Your task to perform on an android device: open device folders in google photos Image 0: 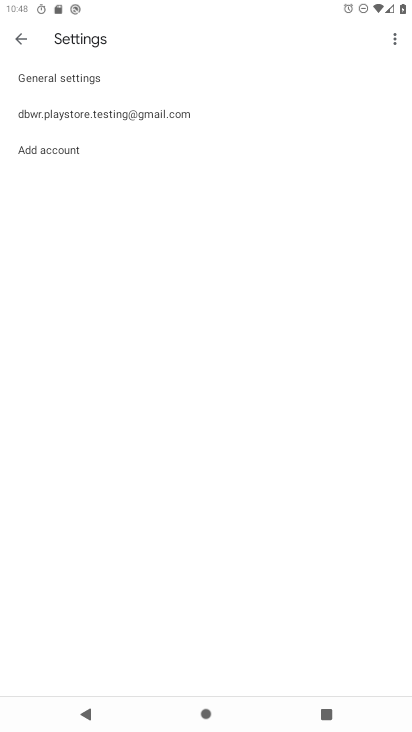
Step 0: press home button
Your task to perform on an android device: open device folders in google photos Image 1: 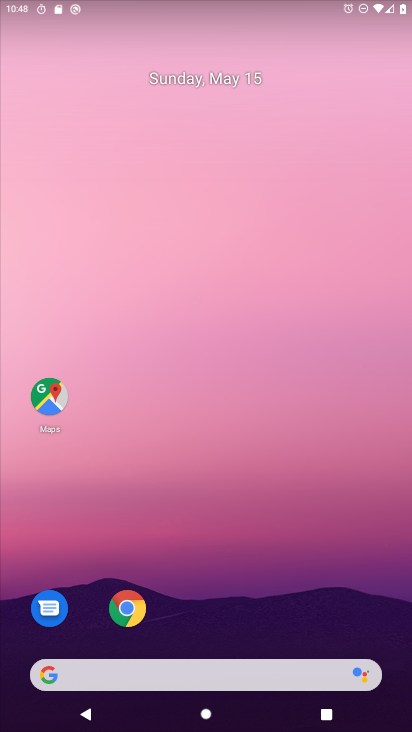
Step 1: drag from (372, 545) to (289, 132)
Your task to perform on an android device: open device folders in google photos Image 2: 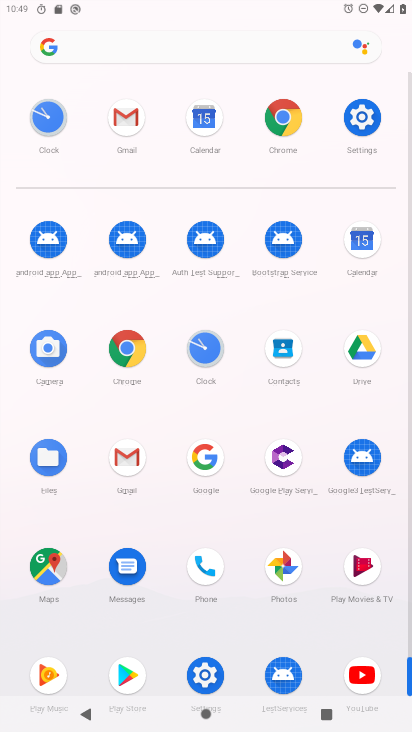
Step 2: click (269, 572)
Your task to perform on an android device: open device folders in google photos Image 3: 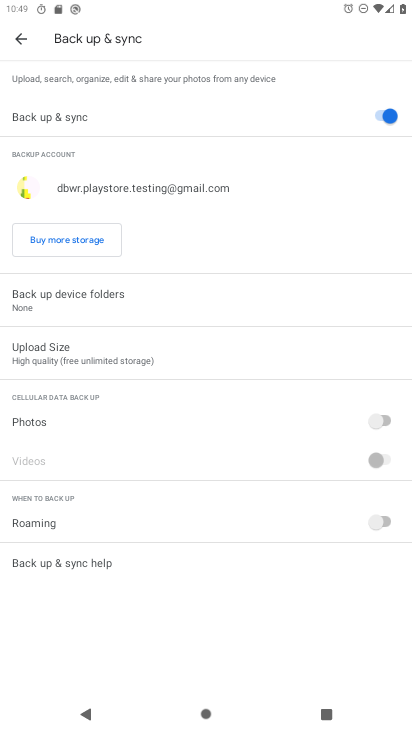
Step 3: click (31, 52)
Your task to perform on an android device: open device folders in google photos Image 4: 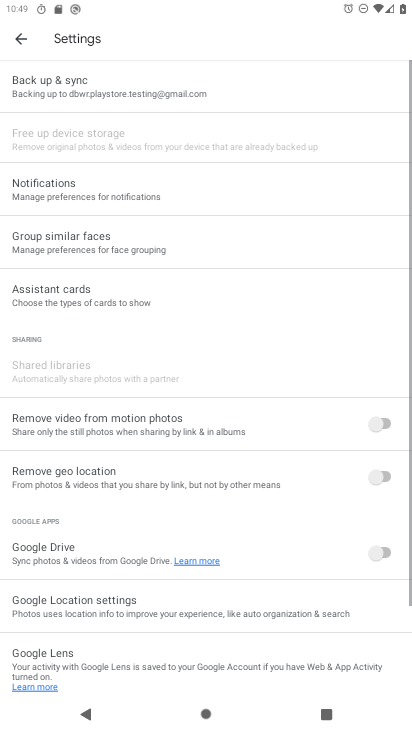
Step 4: click (31, 52)
Your task to perform on an android device: open device folders in google photos Image 5: 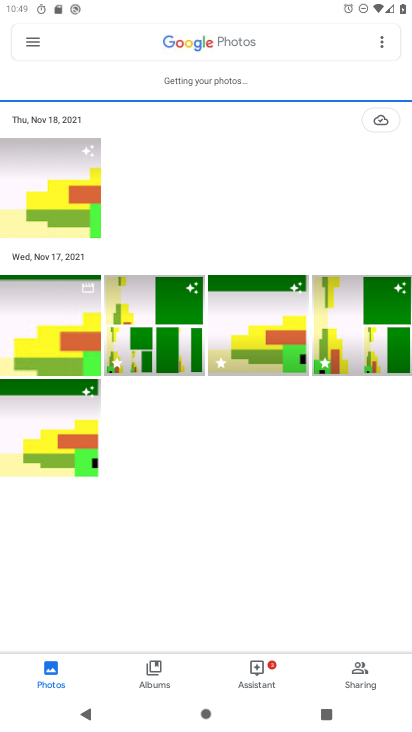
Step 5: click (31, 52)
Your task to perform on an android device: open device folders in google photos Image 6: 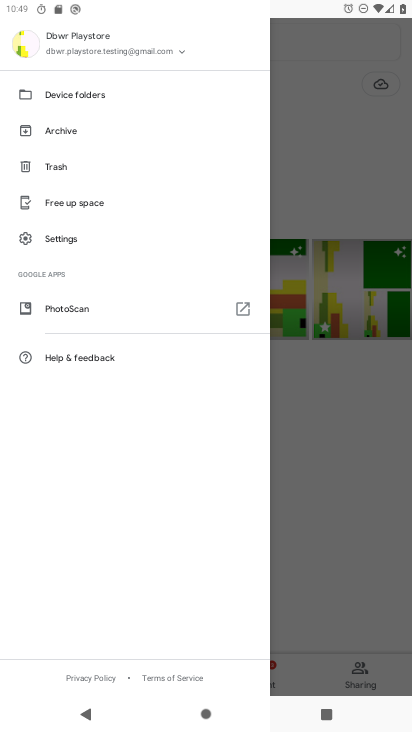
Step 6: click (98, 93)
Your task to perform on an android device: open device folders in google photos Image 7: 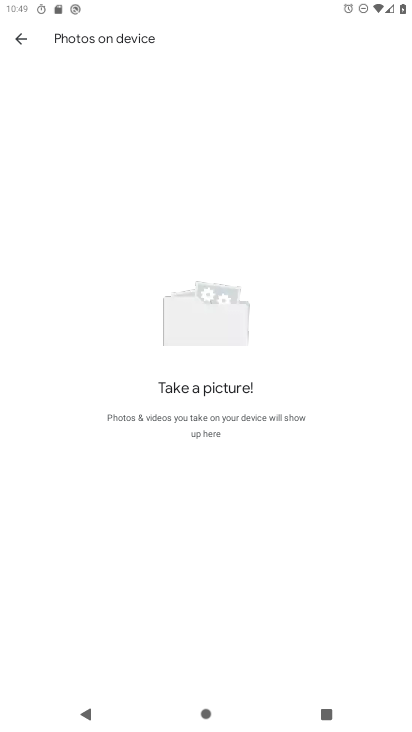
Step 7: task complete